Your task to perform on an android device: Open display settings Image 0: 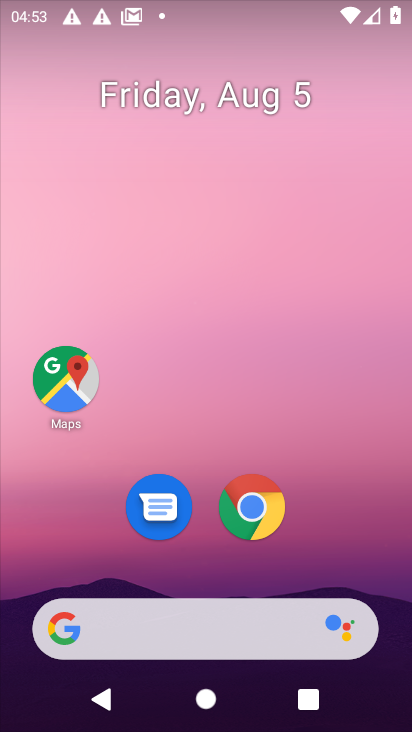
Step 0: drag from (174, 580) to (219, 177)
Your task to perform on an android device: Open display settings Image 1: 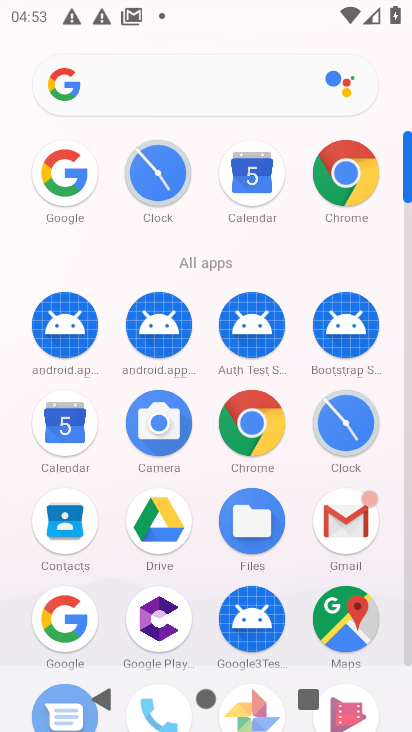
Step 1: drag from (220, 605) to (216, 216)
Your task to perform on an android device: Open display settings Image 2: 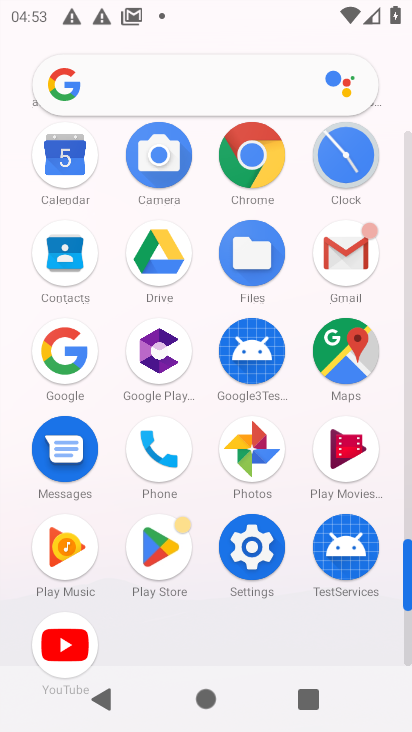
Step 2: click (225, 558)
Your task to perform on an android device: Open display settings Image 3: 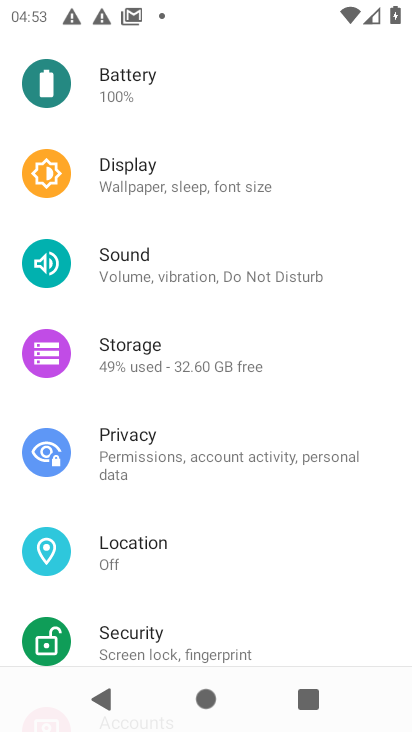
Step 3: click (142, 166)
Your task to perform on an android device: Open display settings Image 4: 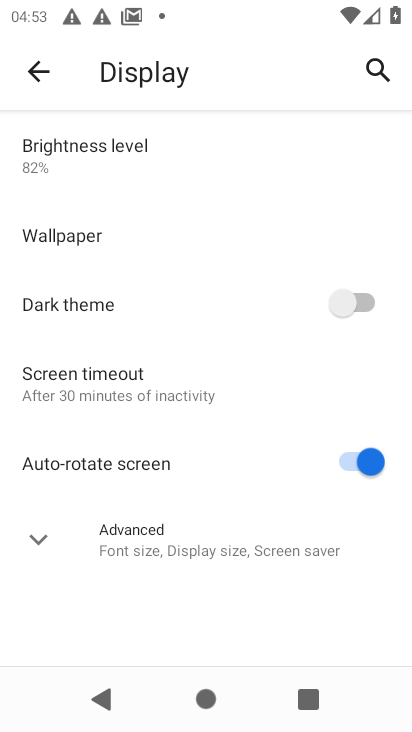
Step 4: click (146, 538)
Your task to perform on an android device: Open display settings Image 5: 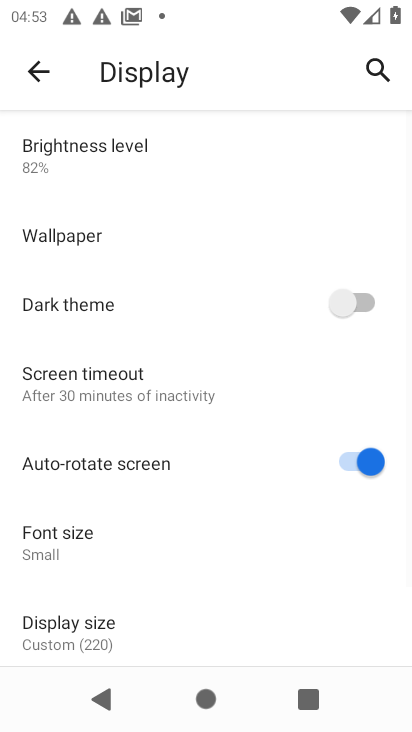
Step 5: task complete